Your task to perform on an android device: open sync settings in chrome Image 0: 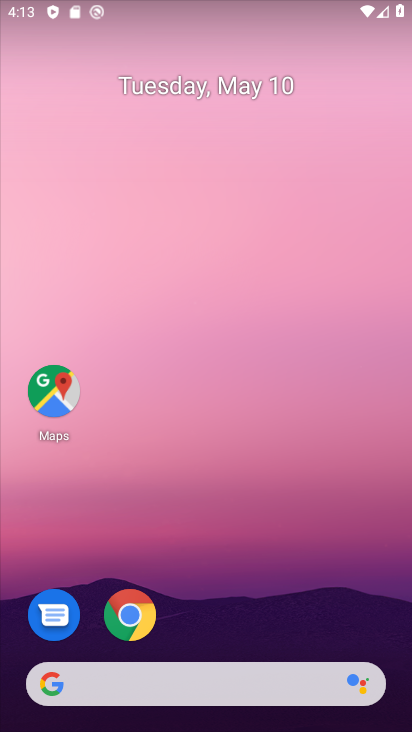
Step 0: click (126, 623)
Your task to perform on an android device: open sync settings in chrome Image 1: 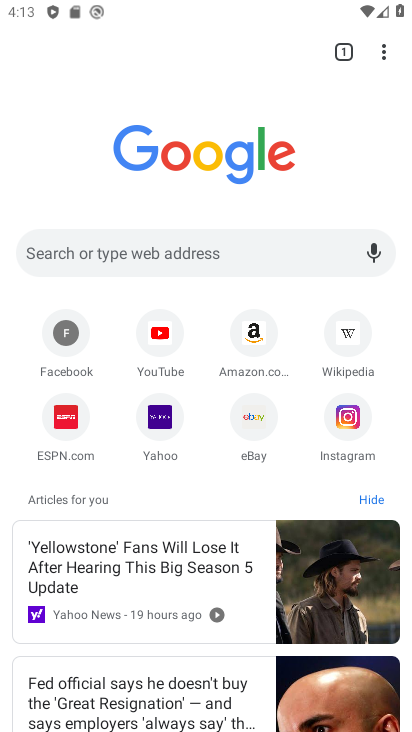
Step 1: drag from (394, 40) to (289, 437)
Your task to perform on an android device: open sync settings in chrome Image 2: 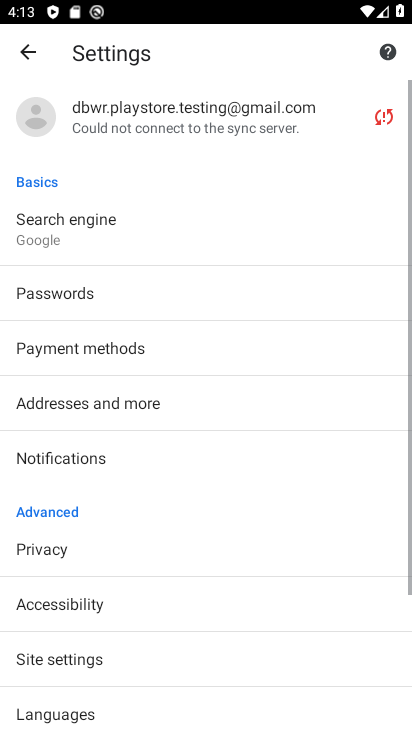
Step 2: click (171, 143)
Your task to perform on an android device: open sync settings in chrome Image 3: 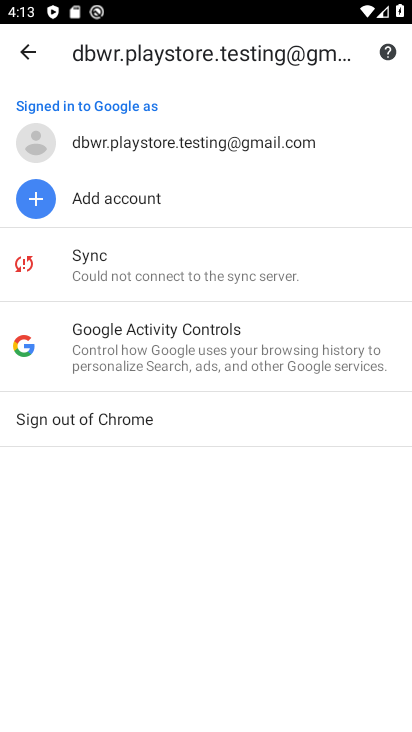
Step 3: click (191, 262)
Your task to perform on an android device: open sync settings in chrome Image 4: 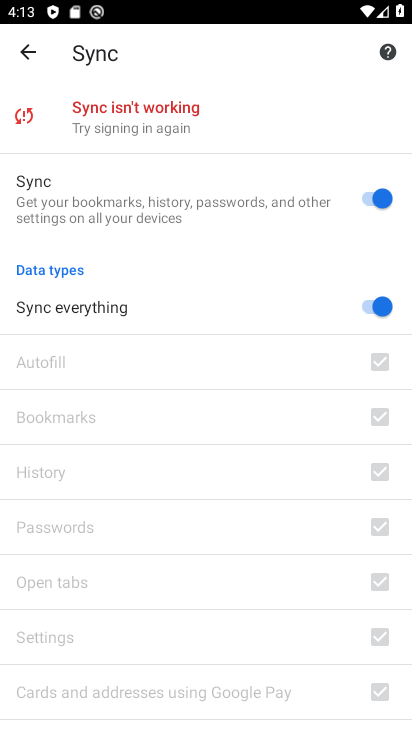
Step 4: task complete